Your task to perform on an android device: clear history in the chrome app Image 0: 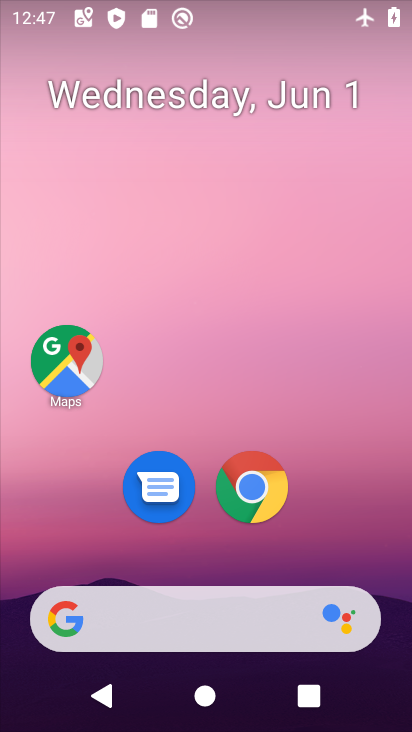
Step 0: click (243, 485)
Your task to perform on an android device: clear history in the chrome app Image 1: 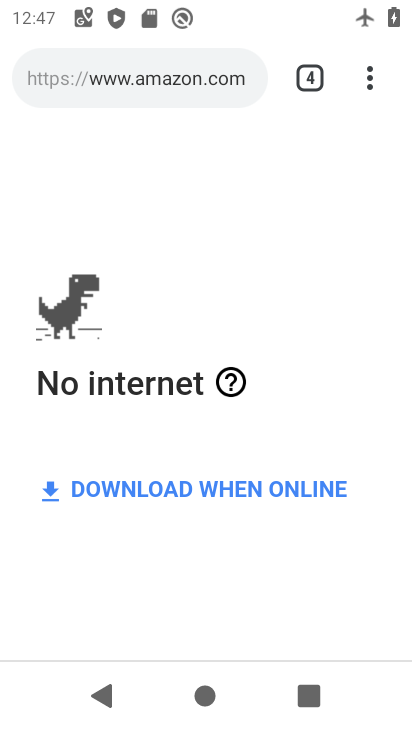
Step 1: click (371, 82)
Your task to perform on an android device: clear history in the chrome app Image 2: 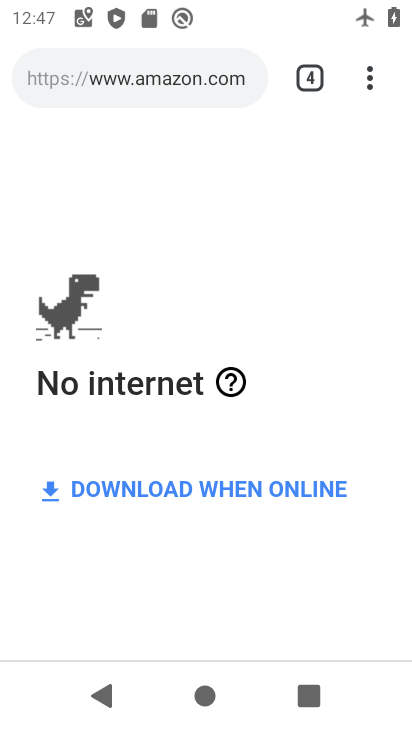
Step 2: click (361, 77)
Your task to perform on an android device: clear history in the chrome app Image 3: 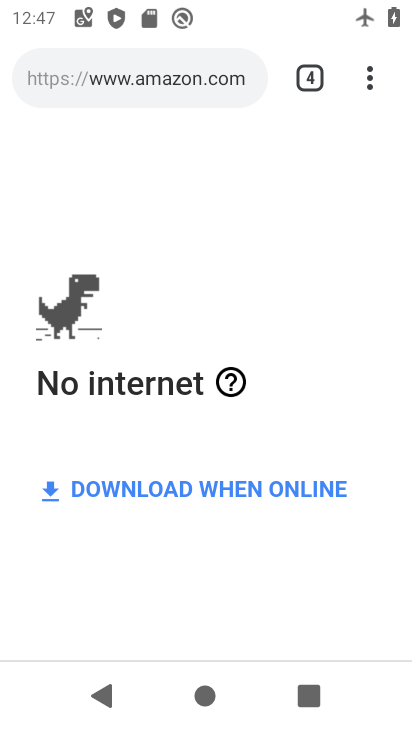
Step 3: click (363, 56)
Your task to perform on an android device: clear history in the chrome app Image 4: 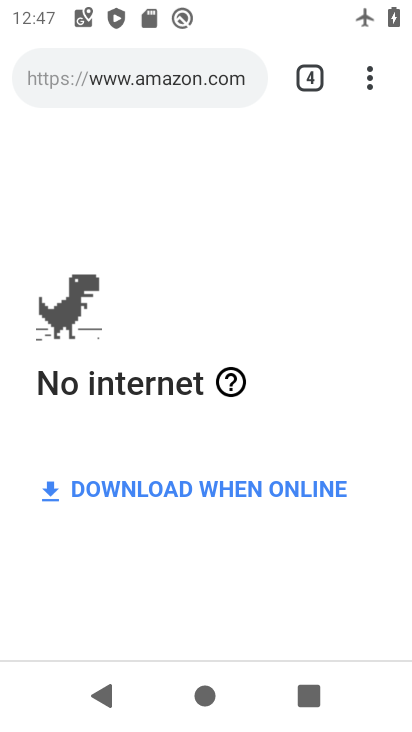
Step 4: click (372, 87)
Your task to perform on an android device: clear history in the chrome app Image 5: 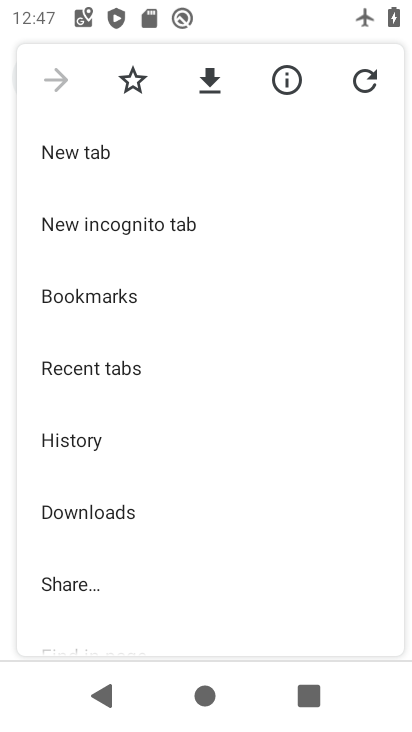
Step 5: click (83, 440)
Your task to perform on an android device: clear history in the chrome app Image 6: 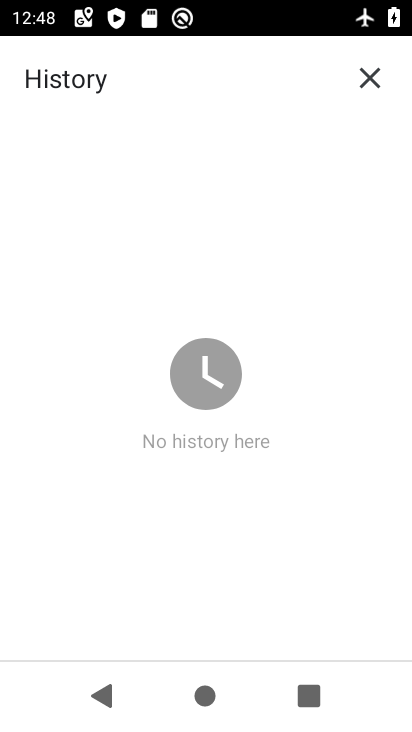
Step 6: task complete